Your task to perform on an android device: Go to calendar. Show me events next week Image 0: 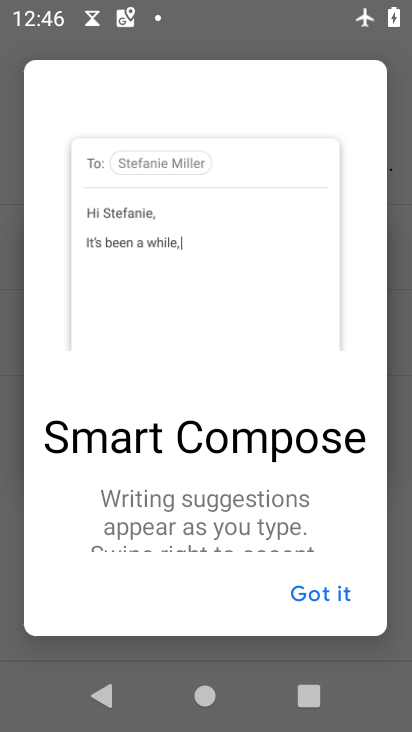
Step 0: press home button
Your task to perform on an android device: Go to calendar. Show me events next week Image 1: 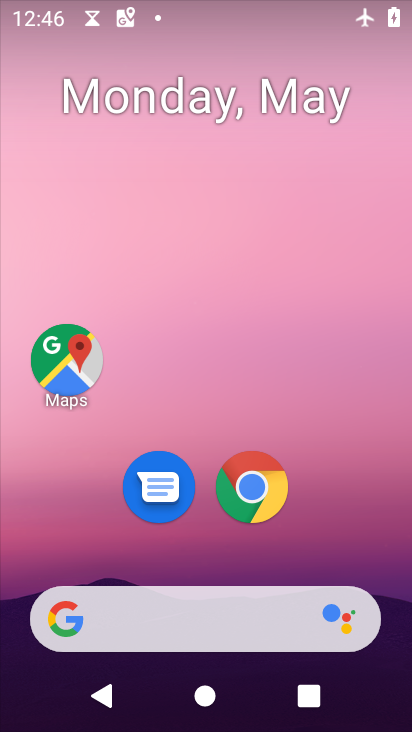
Step 1: drag from (209, 567) to (228, 10)
Your task to perform on an android device: Go to calendar. Show me events next week Image 2: 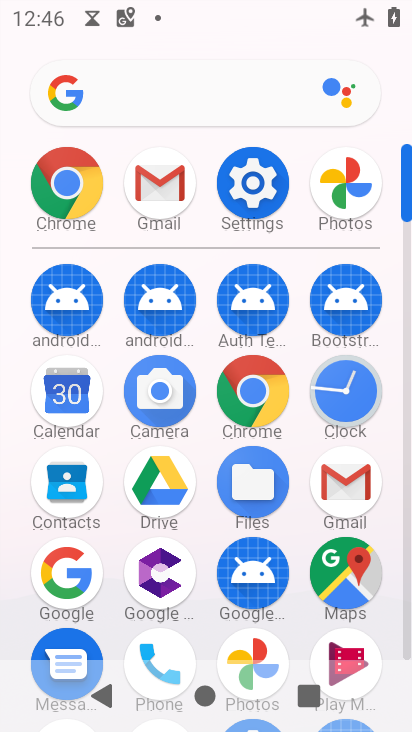
Step 2: click (51, 407)
Your task to perform on an android device: Go to calendar. Show me events next week Image 3: 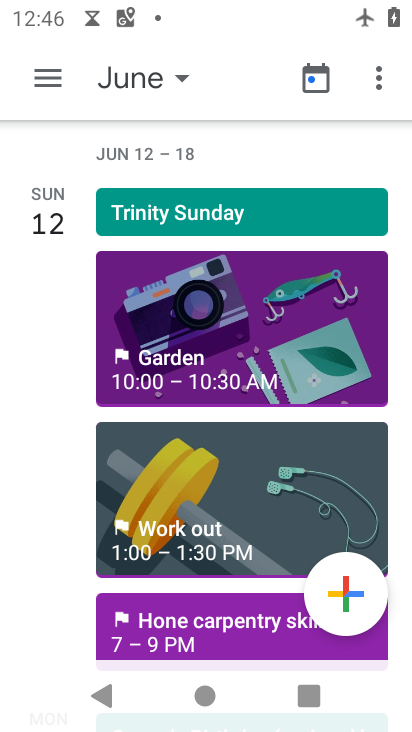
Step 3: click (126, 88)
Your task to perform on an android device: Go to calendar. Show me events next week Image 4: 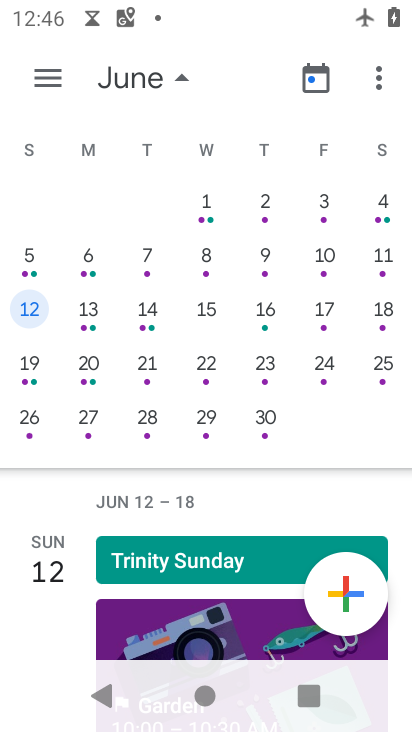
Step 4: click (30, 266)
Your task to perform on an android device: Go to calendar. Show me events next week Image 5: 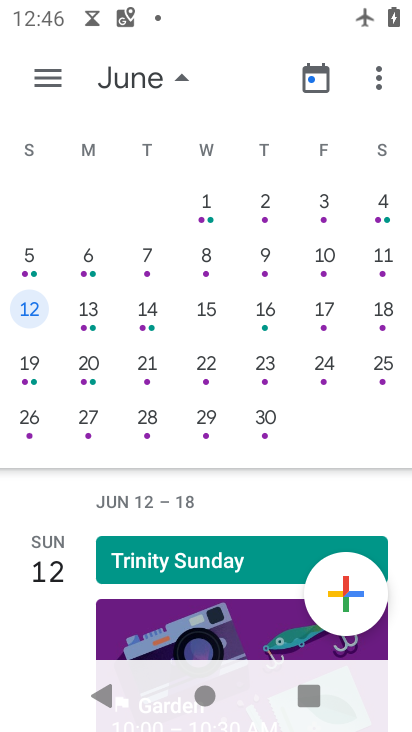
Step 5: click (32, 265)
Your task to perform on an android device: Go to calendar. Show me events next week Image 6: 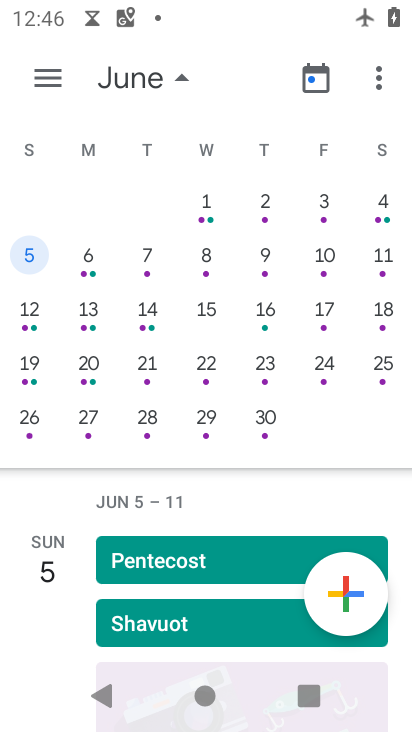
Step 6: task complete